Your task to perform on an android device: change text size in settings app Image 0: 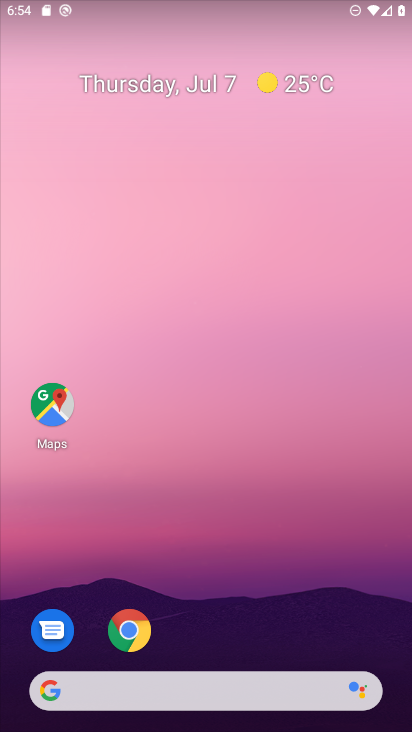
Step 0: click (45, 415)
Your task to perform on an android device: change text size in settings app Image 1: 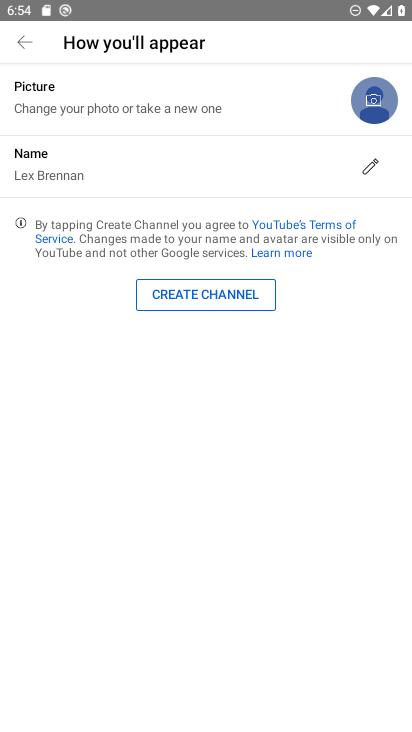
Step 1: press home button
Your task to perform on an android device: change text size in settings app Image 2: 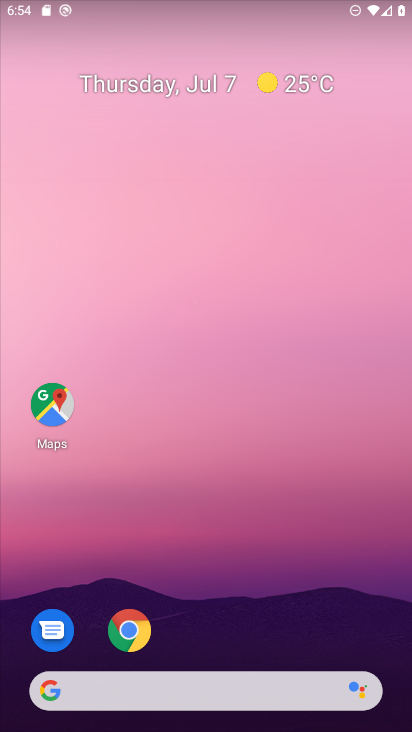
Step 2: drag from (248, 575) to (178, 198)
Your task to perform on an android device: change text size in settings app Image 3: 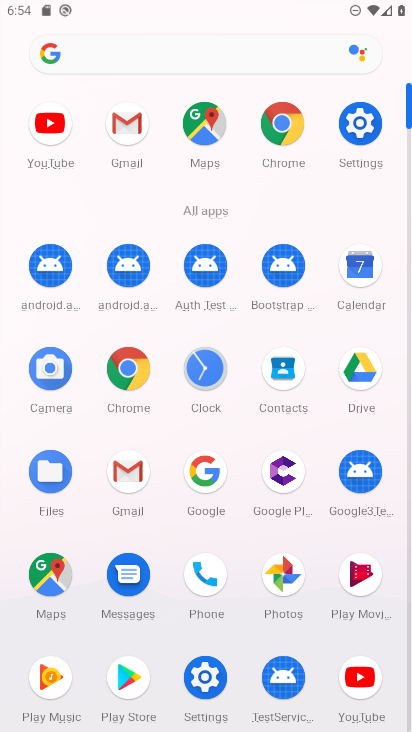
Step 3: click (356, 120)
Your task to perform on an android device: change text size in settings app Image 4: 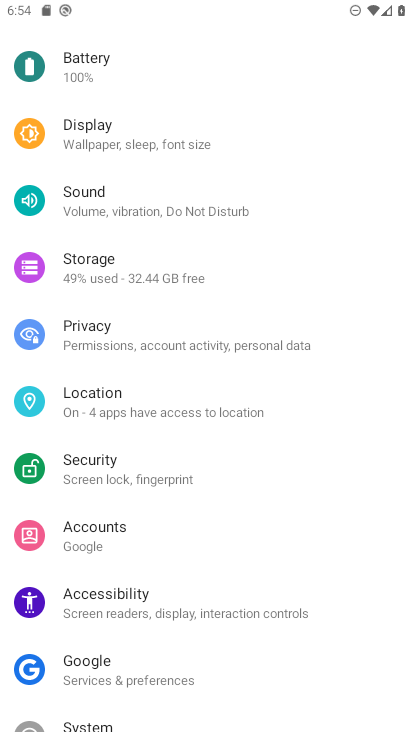
Step 4: click (86, 128)
Your task to perform on an android device: change text size in settings app Image 5: 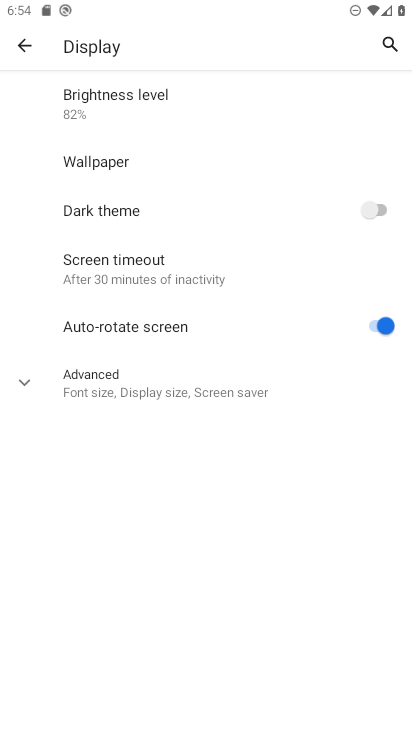
Step 5: click (84, 377)
Your task to perform on an android device: change text size in settings app Image 6: 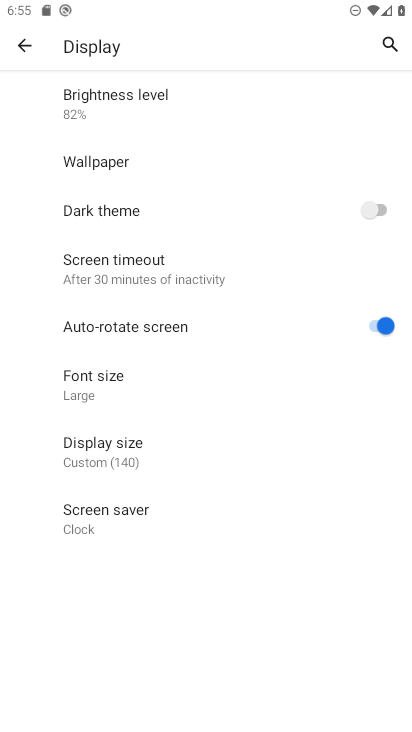
Step 6: click (93, 384)
Your task to perform on an android device: change text size in settings app Image 7: 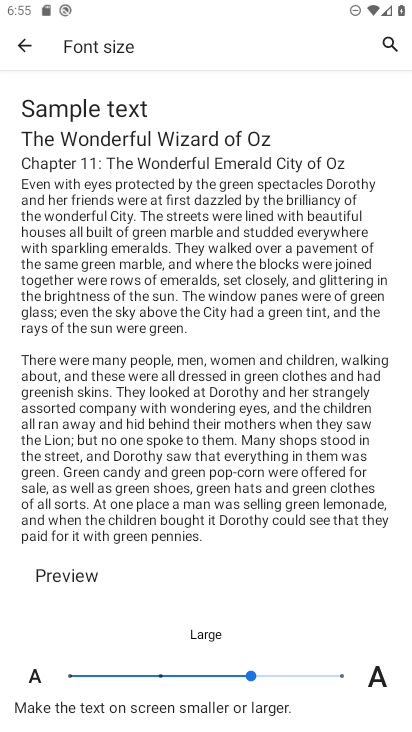
Step 7: click (171, 676)
Your task to perform on an android device: change text size in settings app Image 8: 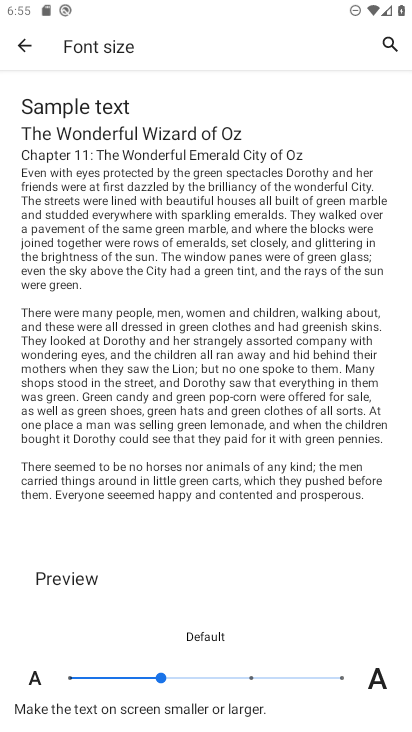
Step 8: task complete